Your task to perform on an android device: Go to Google maps Image 0: 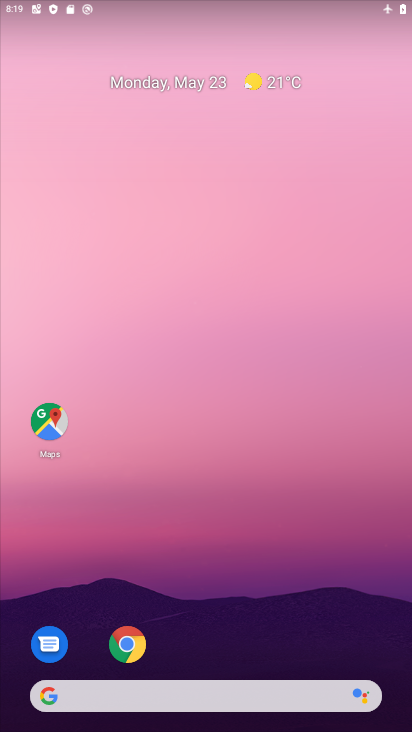
Step 0: click (41, 426)
Your task to perform on an android device: Go to Google maps Image 1: 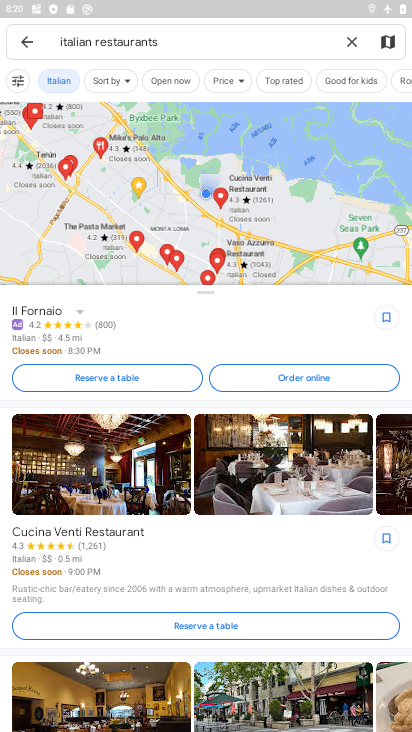
Step 1: task complete